Your task to perform on an android device: What is the recent news? Image 0: 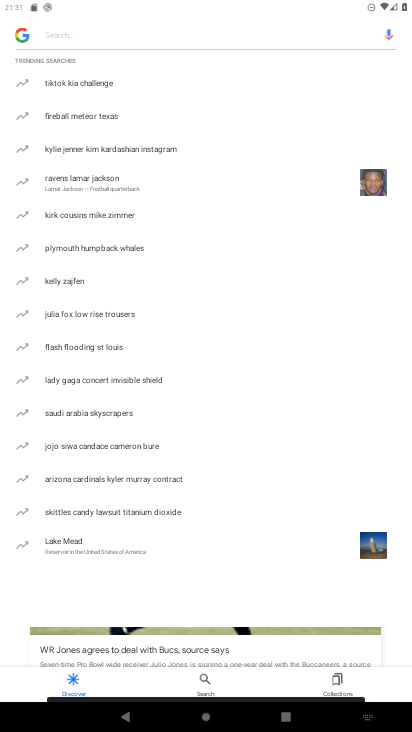
Step 0: press home button
Your task to perform on an android device: What is the recent news? Image 1: 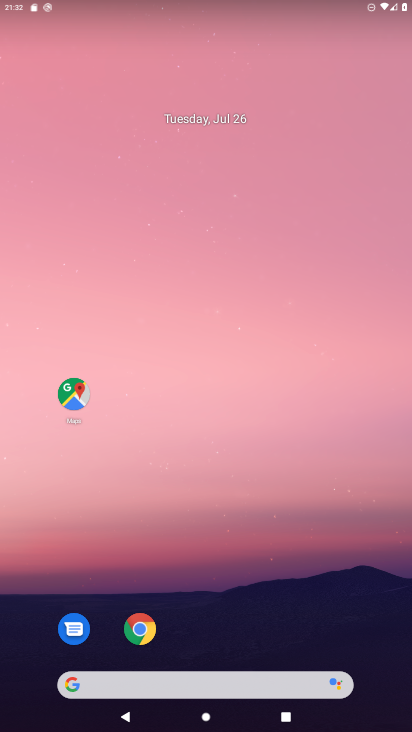
Step 1: click (149, 642)
Your task to perform on an android device: What is the recent news? Image 2: 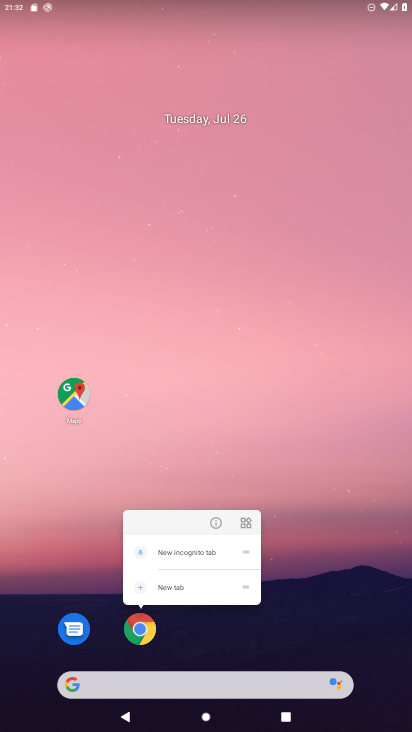
Step 2: click (145, 643)
Your task to perform on an android device: What is the recent news? Image 3: 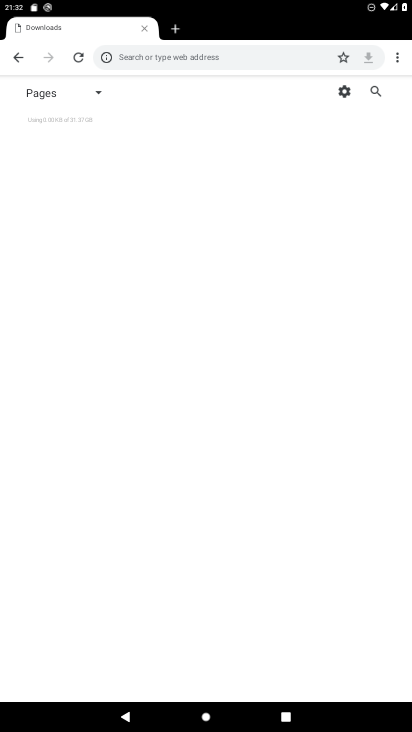
Step 3: click (290, 67)
Your task to perform on an android device: What is the recent news? Image 4: 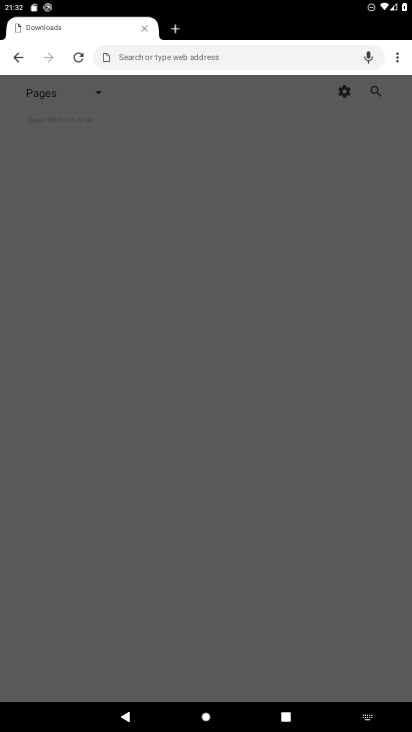
Step 4: type "What is the recent news?"
Your task to perform on an android device: What is the recent news? Image 5: 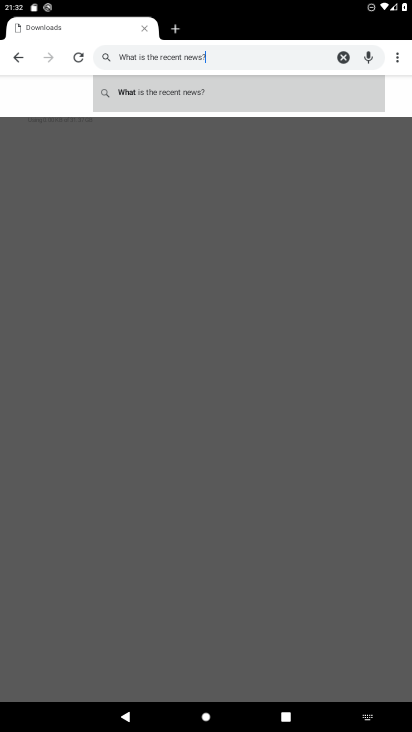
Step 5: type ""
Your task to perform on an android device: What is the recent news? Image 6: 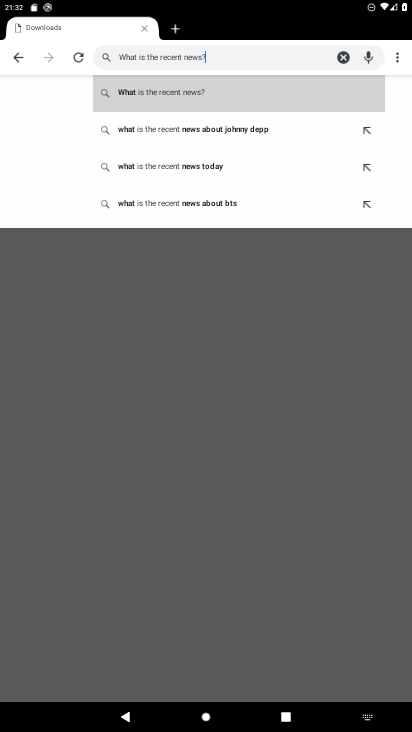
Step 6: click (155, 101)
Your task to perform on an android device: What is the recent news? Image 7: 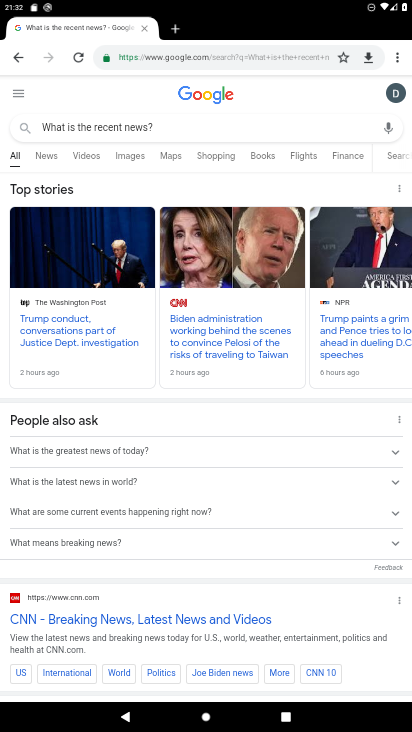
Step 7: task complete